Your task to perform on an android device: empty trash in the gmail app Image 0: 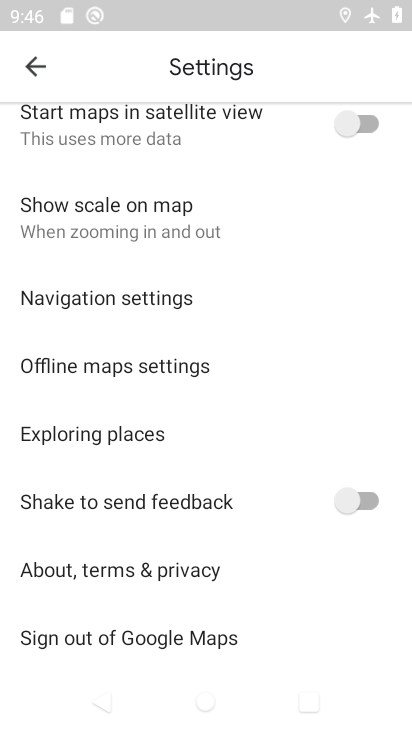
Step 0: press home button
Your task to perform on an android device: empty trash in the gmail app Image 1: 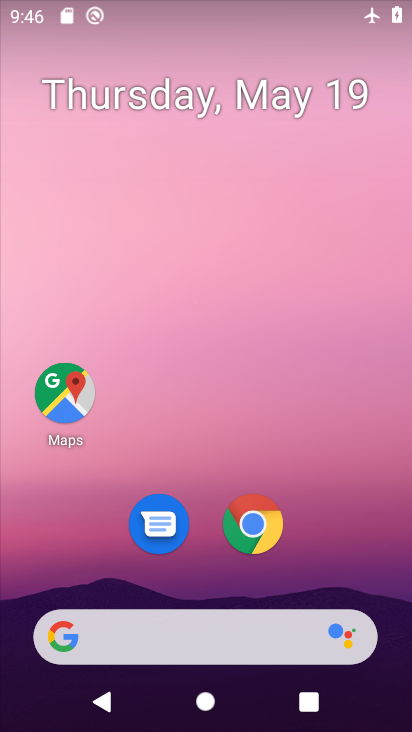
Step 1: drag from (219, 435) to (236, 37)
Your task to perform on an android device: empty trash in the gmail app Image 2: 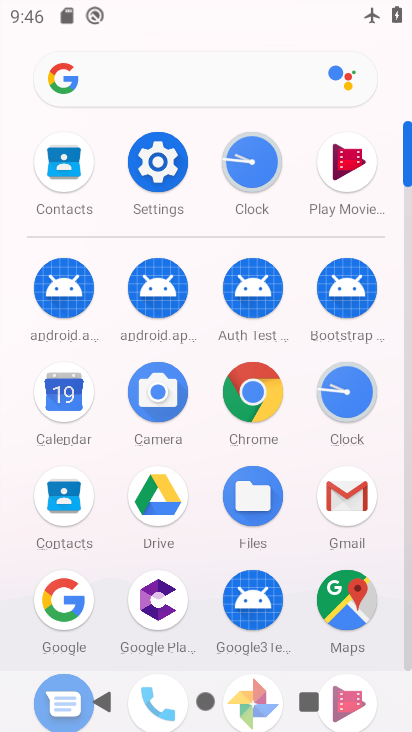
Step 2: click (341, 500)
Your task to perform on an android device: empty trash in the gmail app Image 3: 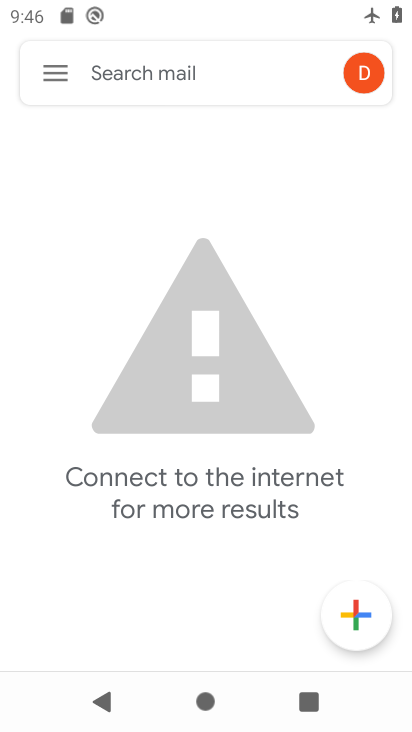
Step 3: click (62, 73)
Your task to perform on an android device: empty trash in the gmail app Image 4: 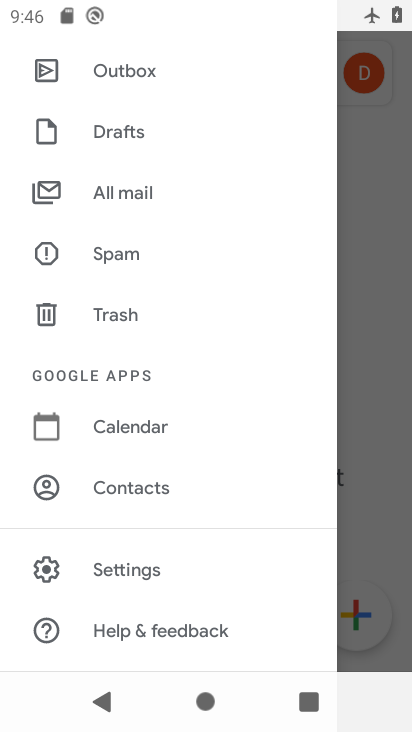
Step 4: click (93, 307)
Your task to perform on an android device: empty trash in the gmail app Image 5: 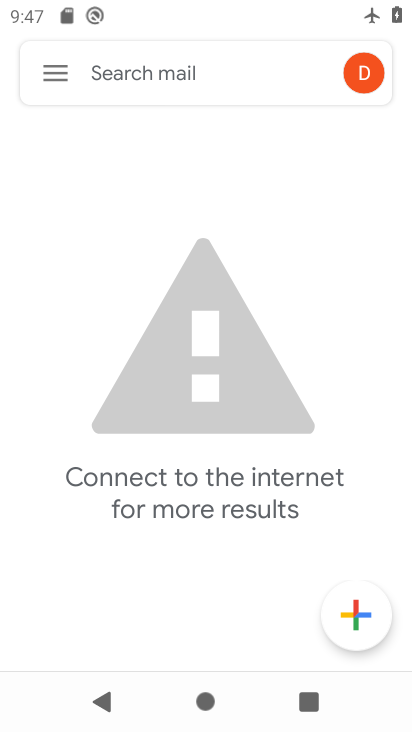
Step 5: task complete